Your task to perform on an android device: turn off wifi Image 0: 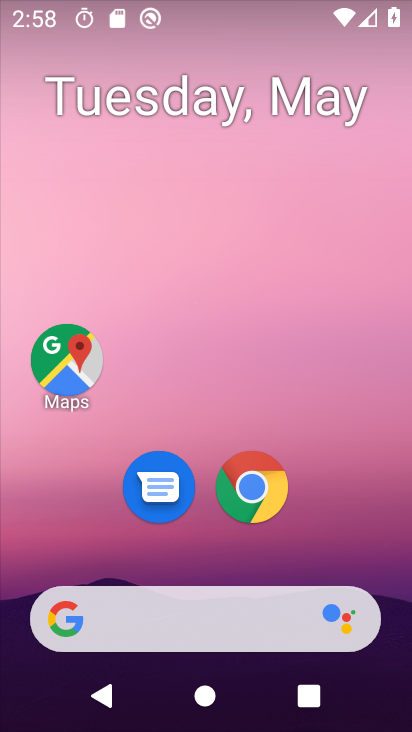
Step 0: drag from (385, 641) to (369, 411)
Your task to perform on an android device: turn off wifi Image 1: 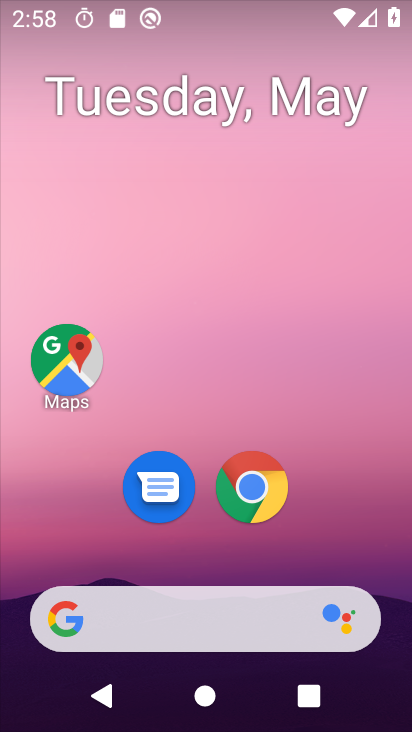
Step 1: drag from (398, 638) to (384, 277)
Your task to perform on an android device: turn off wifi Image 2: 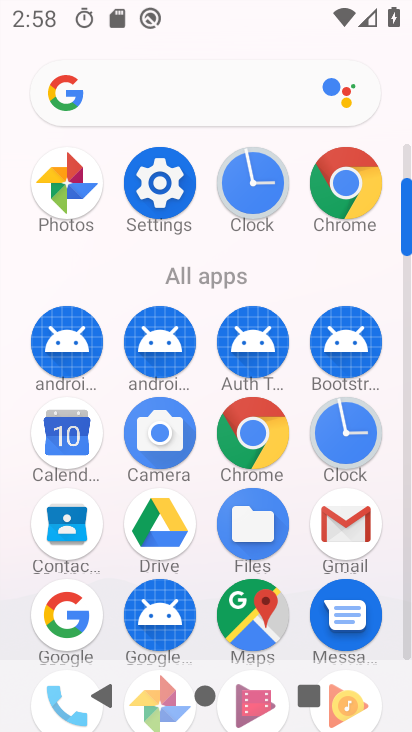
Step 2: click (147, 189)
Your task to perform on an android device: turn off wifi Image 3: 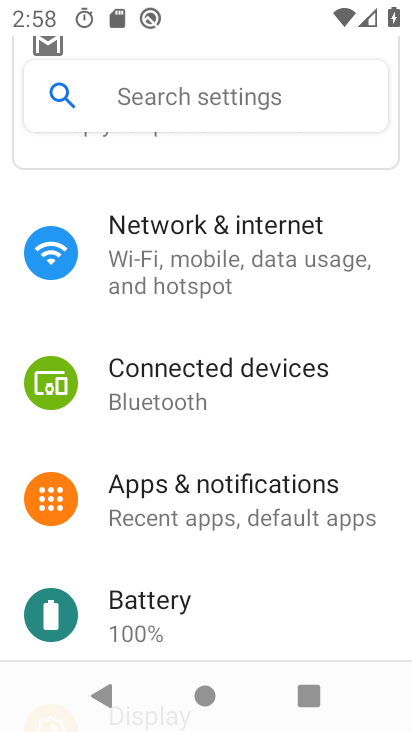
Step 3: click (213, 247)
Your task to perform on an android device: turn off wifi Image 4: 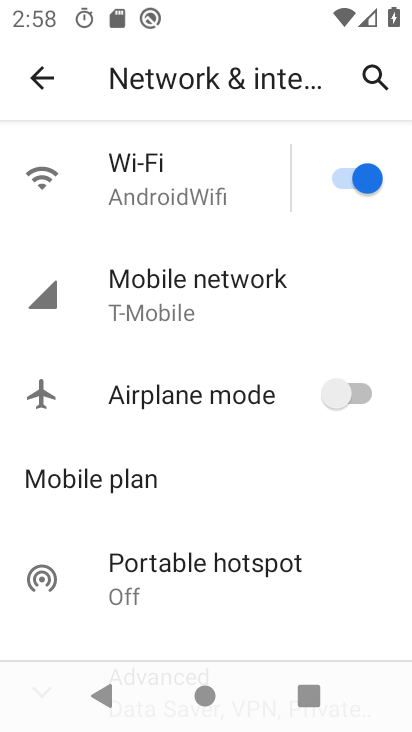
Step 4: click (332, 176)
Your task to perform on an android device: turn off wifi Image 5: 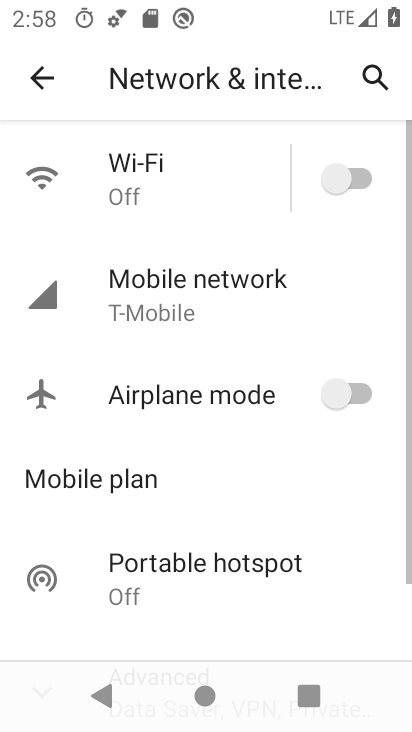
Step 5: task complete